Your task to perform on an android device: Find coffee shops on Maps Image 0: 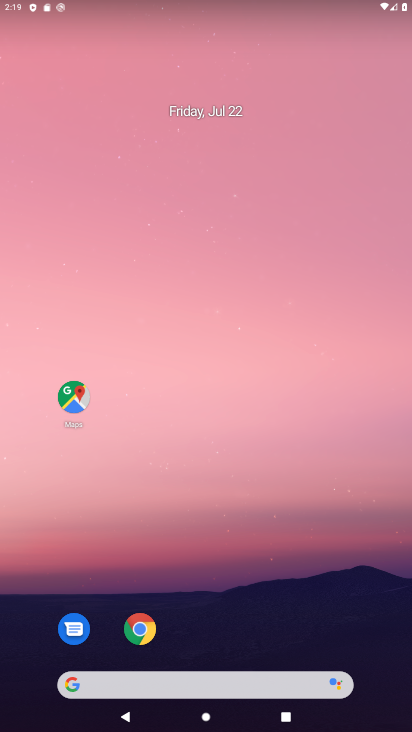
Step 0: drag from (239, 172) to (177, 204)
Your task to perform on an android device: Find coffee shops on Maps Image 1: 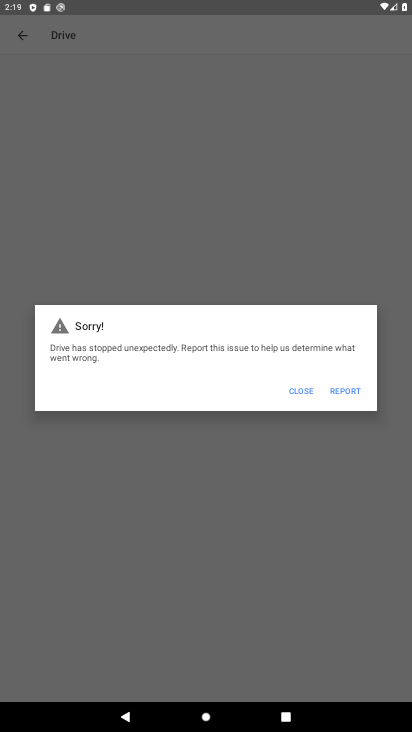
Step 1: press home button
Your task to perform on an android device: Find coffee shops on Maps Image 2: 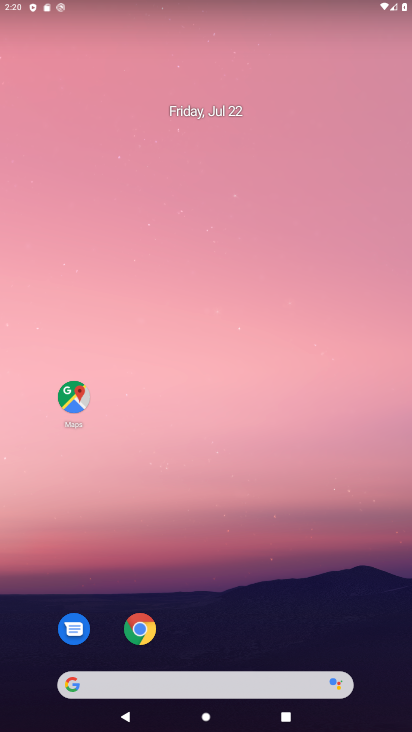
Step 2: click (81, 412)
Your task to perform on an android device: Find coffee shops on Maps Image 3: 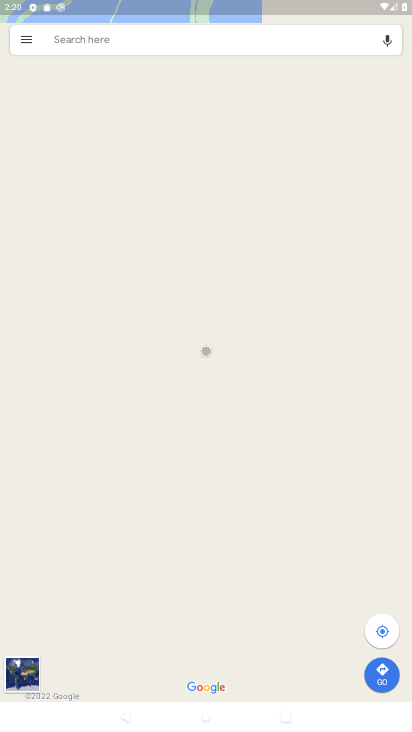
Step 3: click (154, 34)
Your task to perform on an android device: Find coffee shops on Maps Image 4: 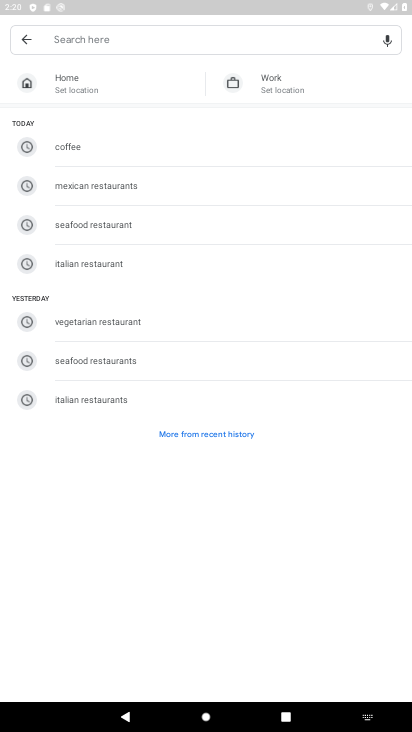
Step 4: type "coffee shops"
Your task to perform on an android device: Find coffee shops on Maps Image 5: 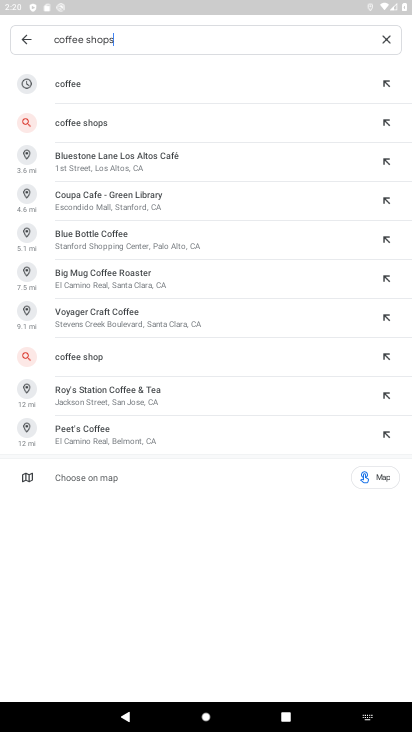
Step 5: click (77, 120)
Your task to perform on an android device: Find coffee shops on Maps Image 6: 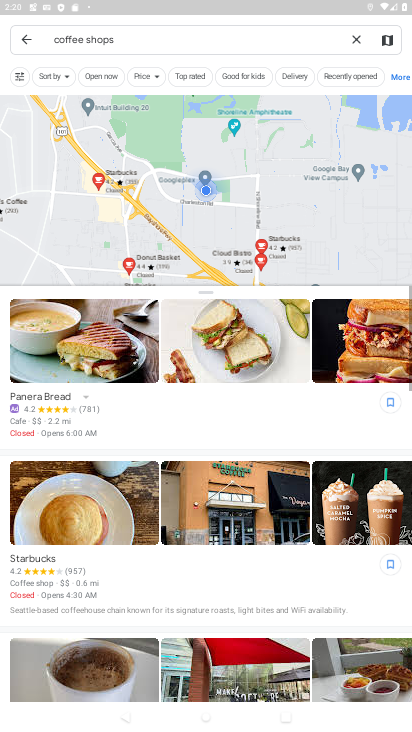
Step 6: task complete